Your task to perform on an android device: allow cookies in the chrome app Image 0: 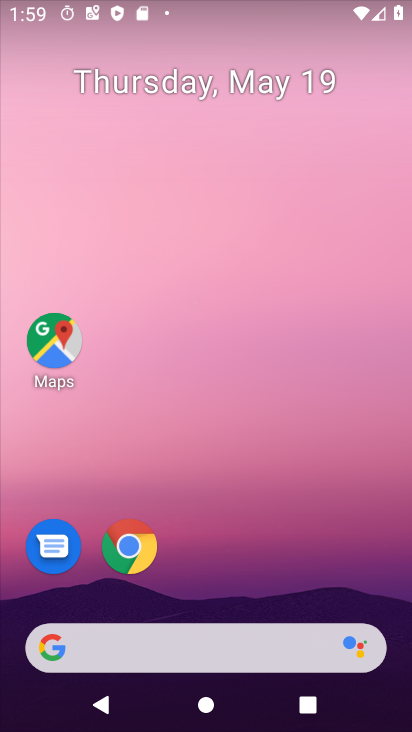
Step 0: click (130, 545)
Your task to perform on an android device: allow cookies in the chrome app Image 1: 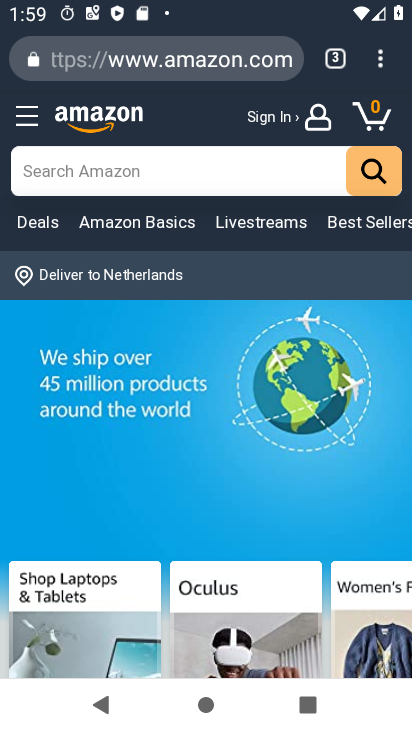
Step 1: click (368, 52)
Your task to perform on an android device: allow cookies in the chrome app Image 2: 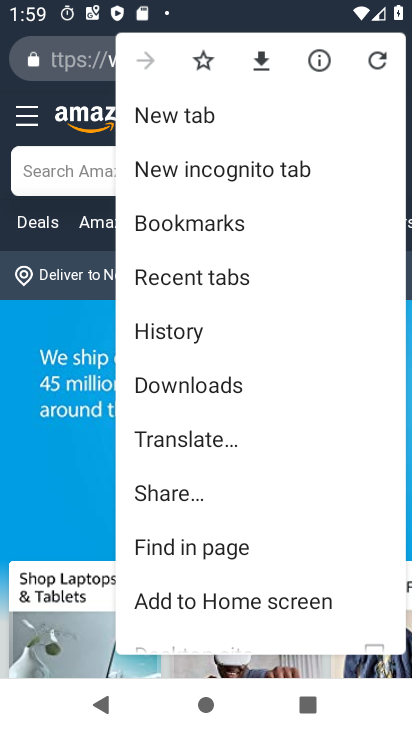
Step 2: drag from (185, 498) to (200, 140)
Your task to perform on an android device: allow cookies in the chrome app Image 3: 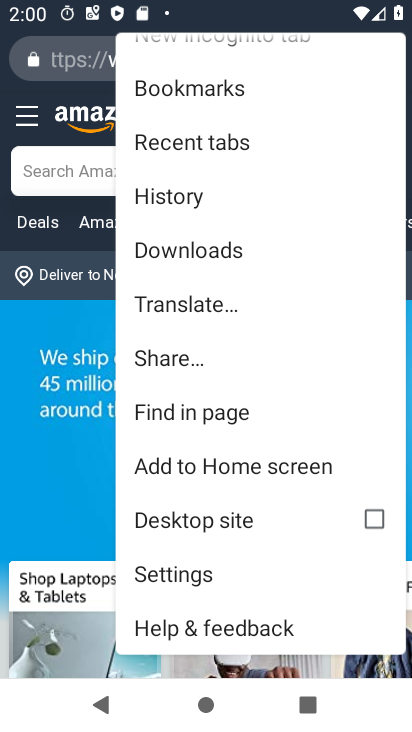
Step 3: click (164, 582)
Your task to perform on an android device: allow cookies in the chrome app Image 4: 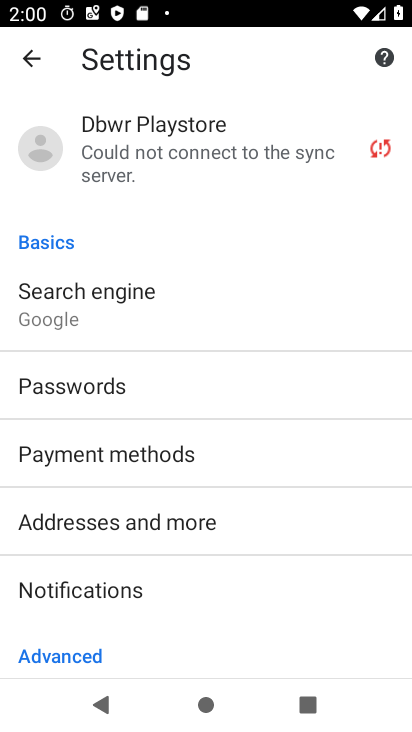
Step 4: drag from (119, 613) to (190, 295)
Your task to perform on an android device: allow cookies in the chrome app Image 5: 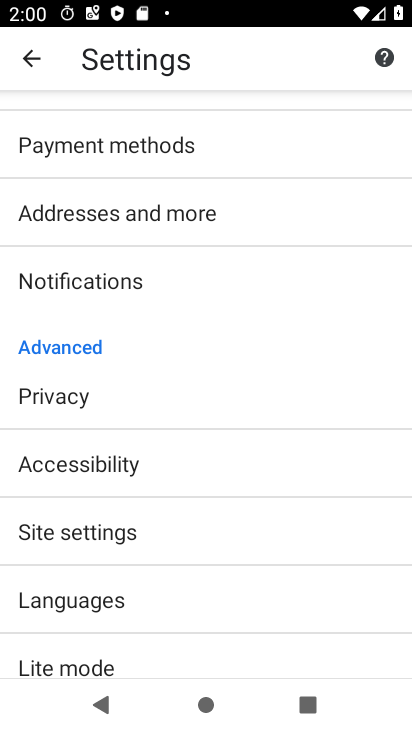
Step 5: drag from (99, 604) to (125, 358)
Your task to perform on an android device: allow cookies in the chrome app Image 6: 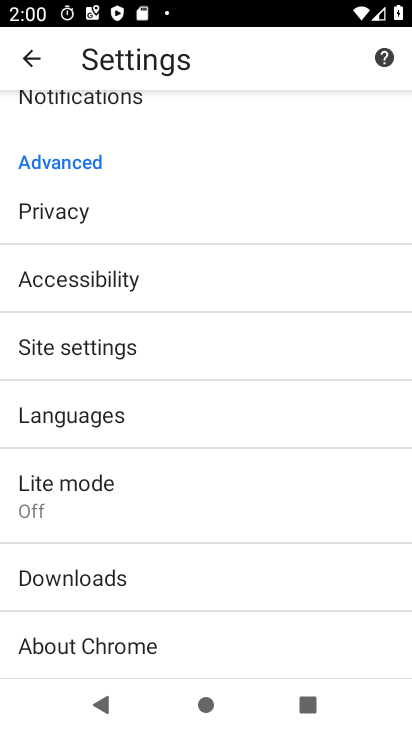
Step 6: click (117, 341)
Your task to perform on an android device: allow cookies in the chrome app Image 7: 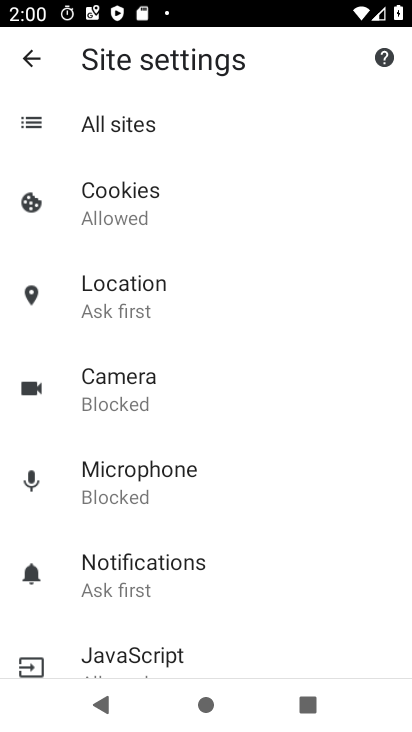
Step 7: click (190, 201)
Your task to perform on an android device: allow cookies in the chrome app Image 8: 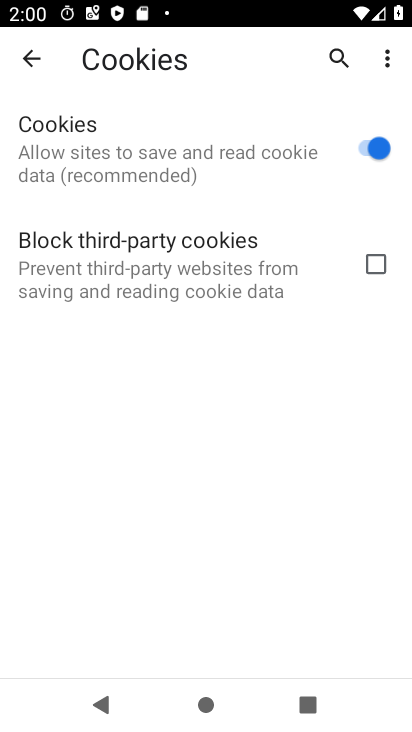
Step 8: task complete